Your task to perform on an android device: What's on my calendar today? Image 0: 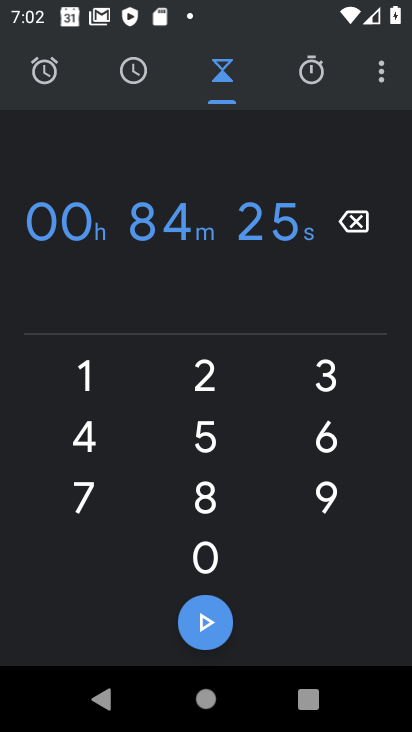
Step 0: press home button
Your task to perform on an android device: What's on my calendar today? Image 1: 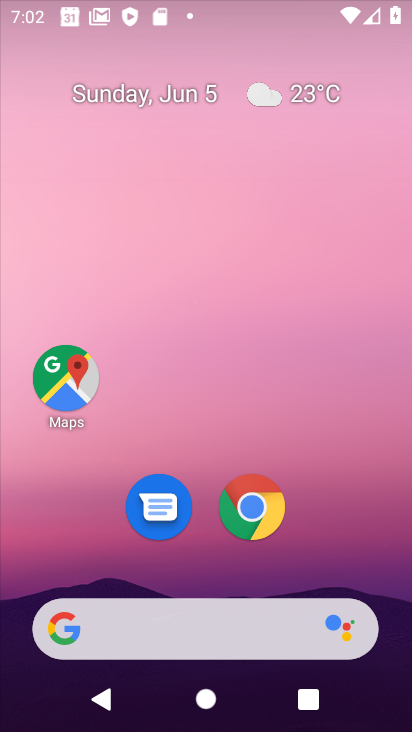
Step 1: drag from (261, 665) to (259, 102)
Your task to perform on an android device: What's on my calendar today? Image 2: 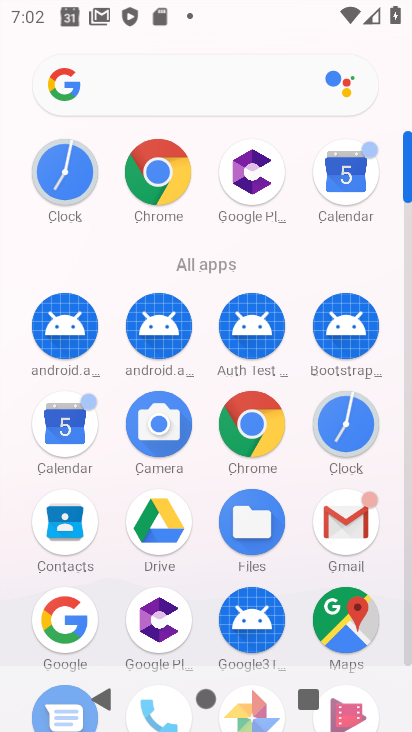
Step 2: click (95, 415)
Your task to perform on an android device: What's on my calendar today? Image 3: 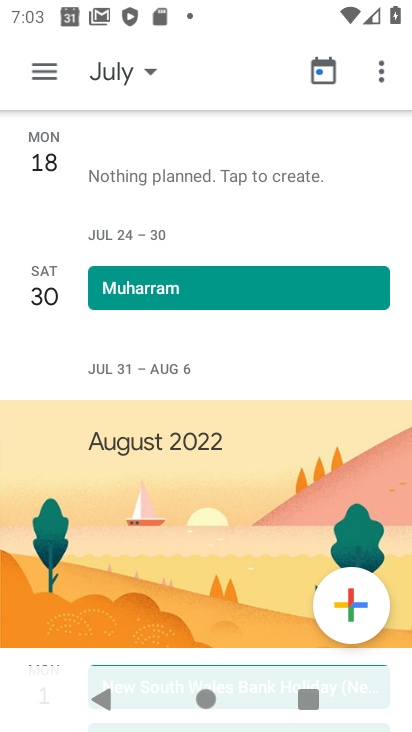
Step 3: click (51, 83)
Your task to perform on an android device: What's on my calendar today? Image 4: 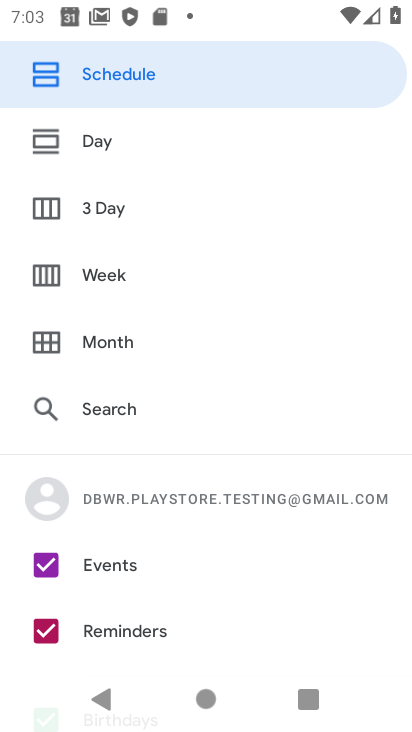
Step 4: click (121, 333)
Your task to perform on an android device: What's on my calendar today? Image 5: 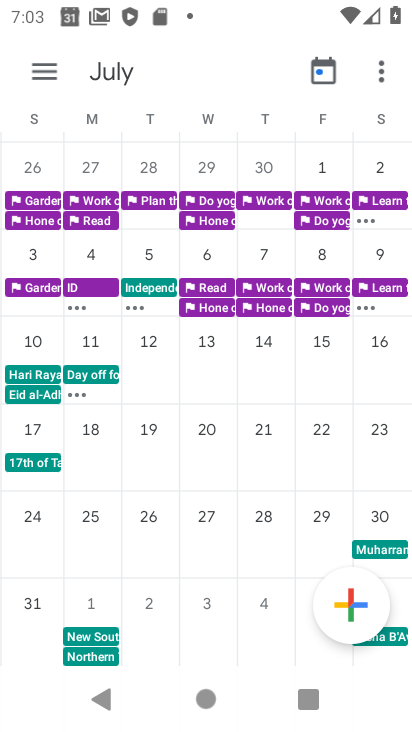
Step 5: drag from (70, 415) to (406, 392)
Your task to perform on an android device: What's on my calendar today? Image 6: 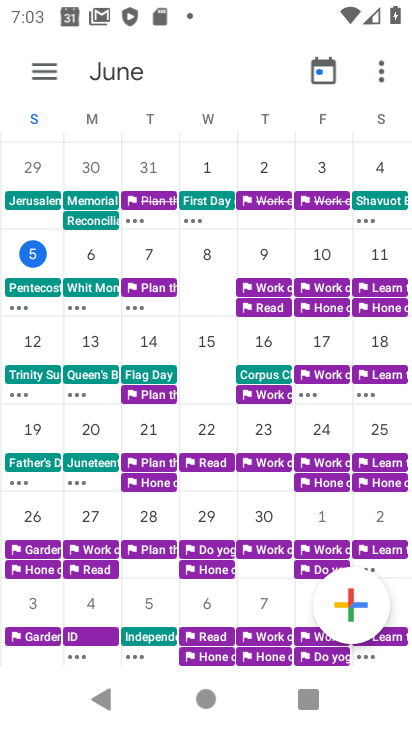
Step 6: click (21, 263)
Your task to perform on an android device: What's on my calendar today? Image 7: 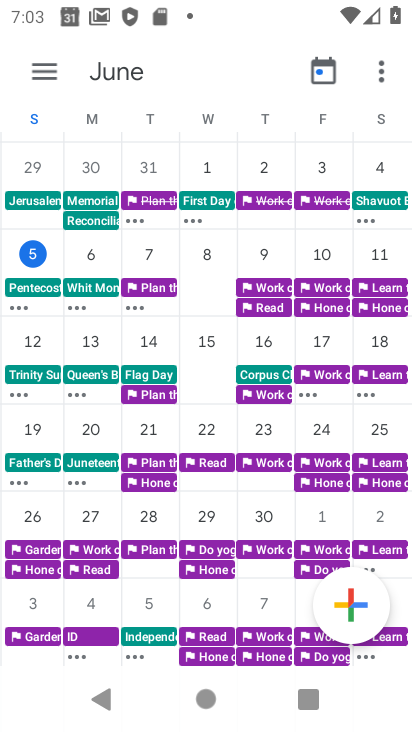
Step 7: task complete